Your task to perform on an android device: open device folders in google photos Image 0: 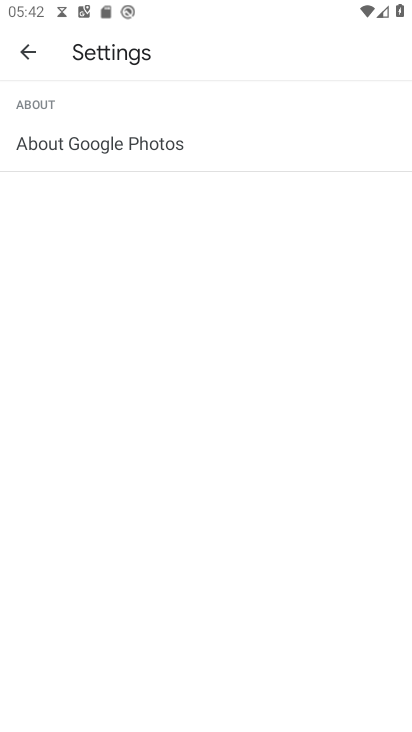
Step 0: press home button
Your task to perform on an android device: open device folders in google photos Image 1: 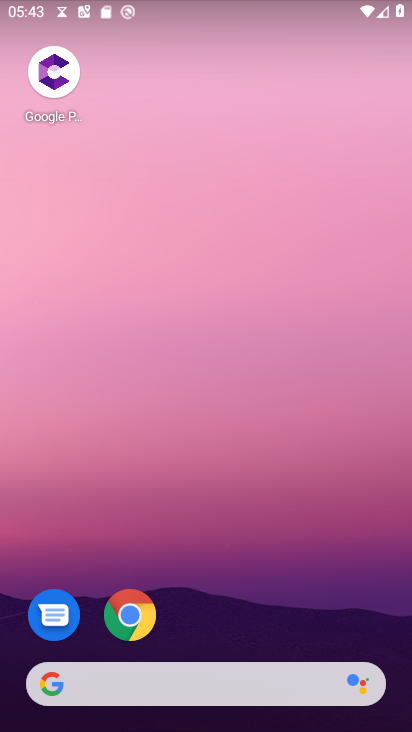
Step 1: click (111, 462)
Your task to perform on an android device: open device folders in google photos Image 2: 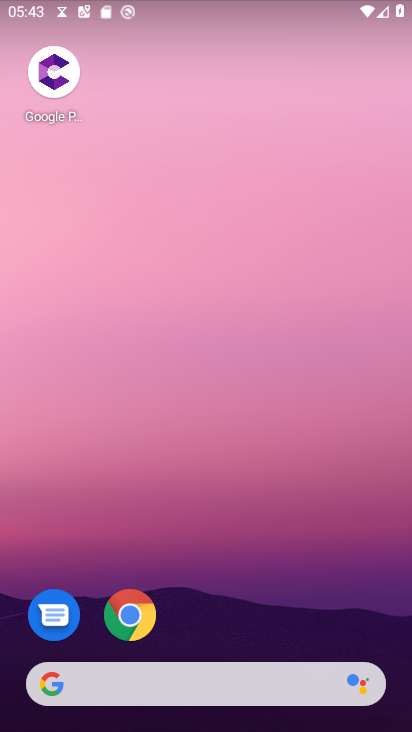
Step 2: drag from (194, 708) to (265, 155)
Your task to perform on an android device: open device folders in google photos Image 3: 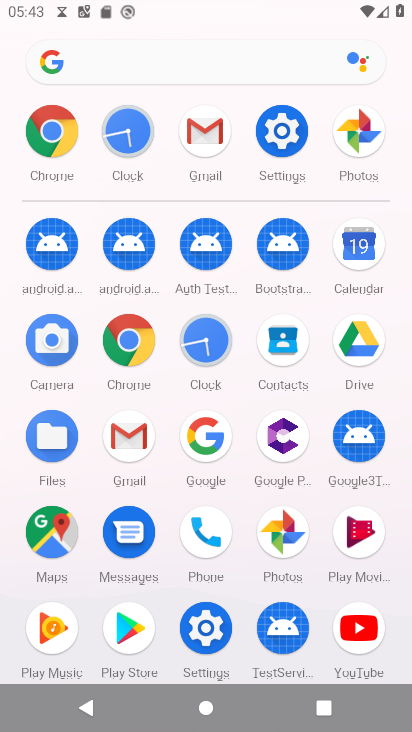
Step 3: click (282, 543)
Your task to perform on an android device: open device folders in google photos Image 4: 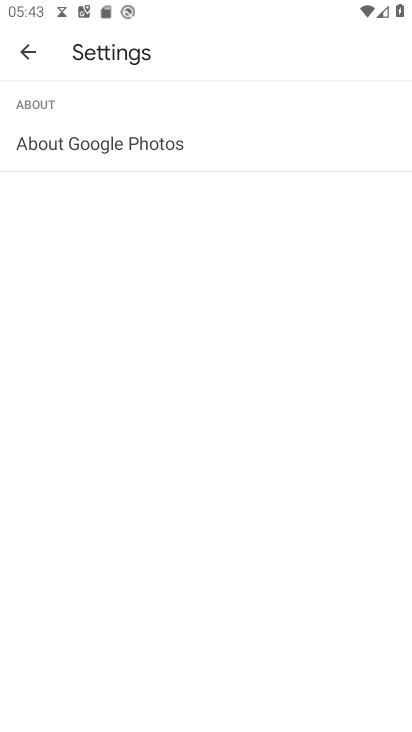
Step 4: press back button
Your task to perform on an android device: open device folders in google photos Image 5: 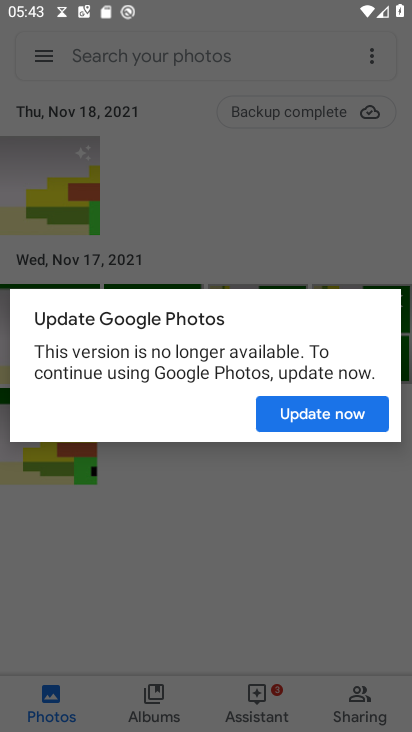
Step 5: click (323, 415)
Your task to perform on an android device: open device folders in google photos Image 6: 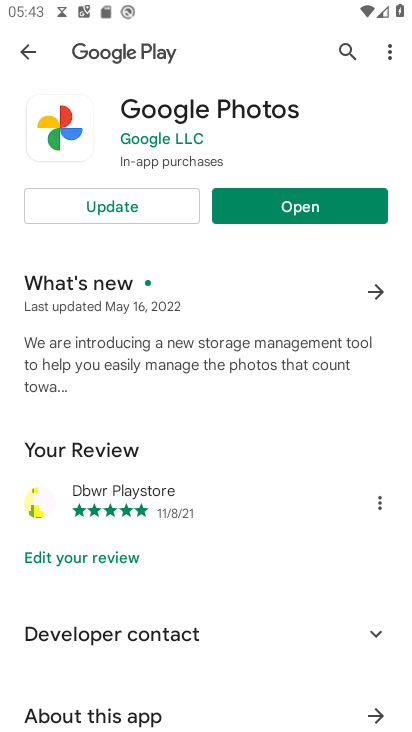
Step 6: click (170, 214)
Your task to perform on an android device: open device folders in google photos Image 7: 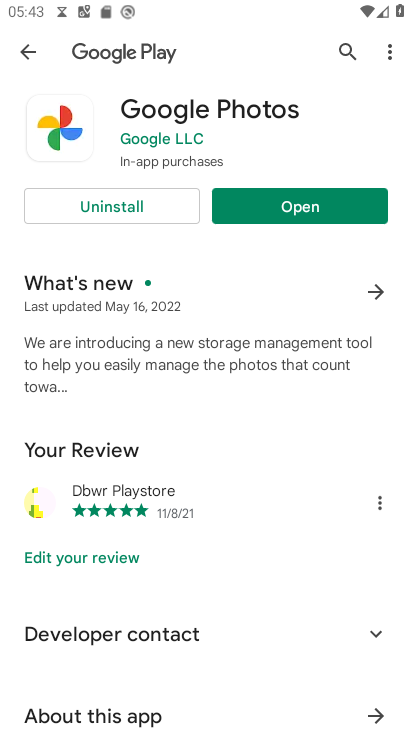
Step 7: click (259, 209)
Your task to perform on an android device: open device folders in google photos Image 8: 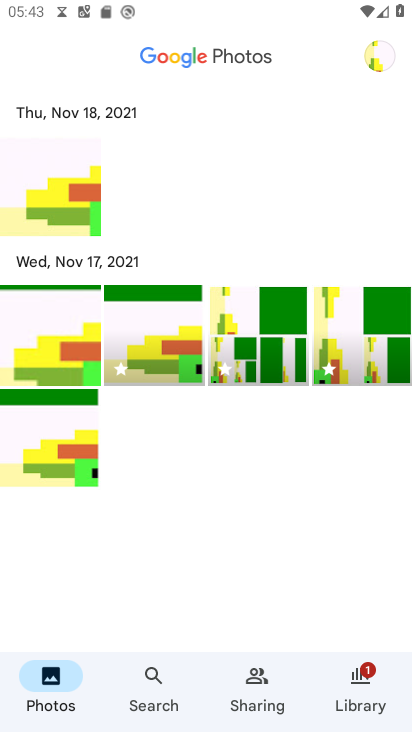
Step 8: click (362, 678)
Your task to perform on an android device: open device folders in google photos Image 9: 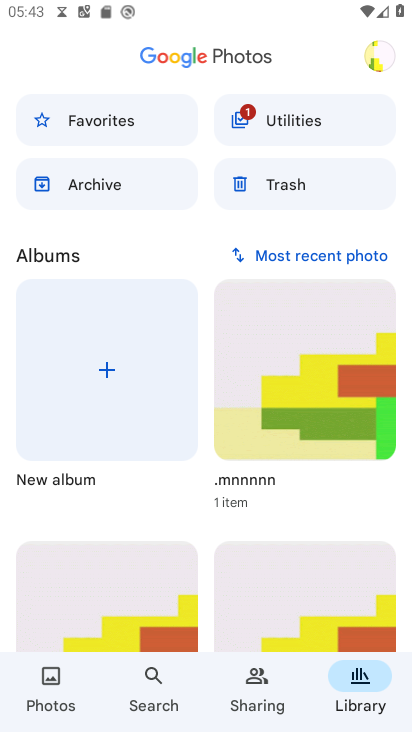
Step 9: click (390, 58)
Your task to perform on an android device: open device folders in google photos Image 10: 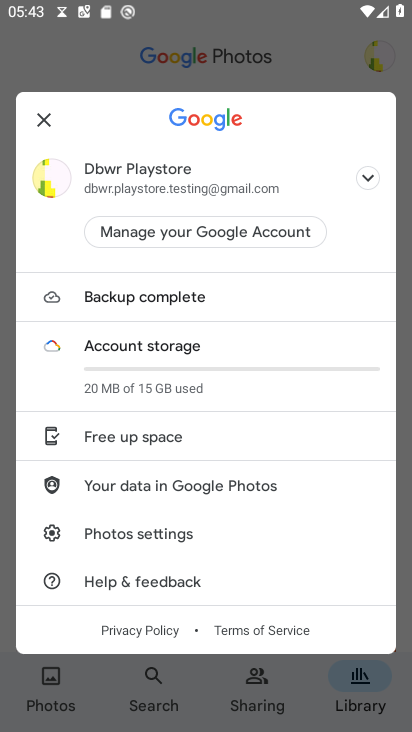
Step 10: task complete